Your task to perform on an android device: manage bookmarks in the chrome app Image 0: 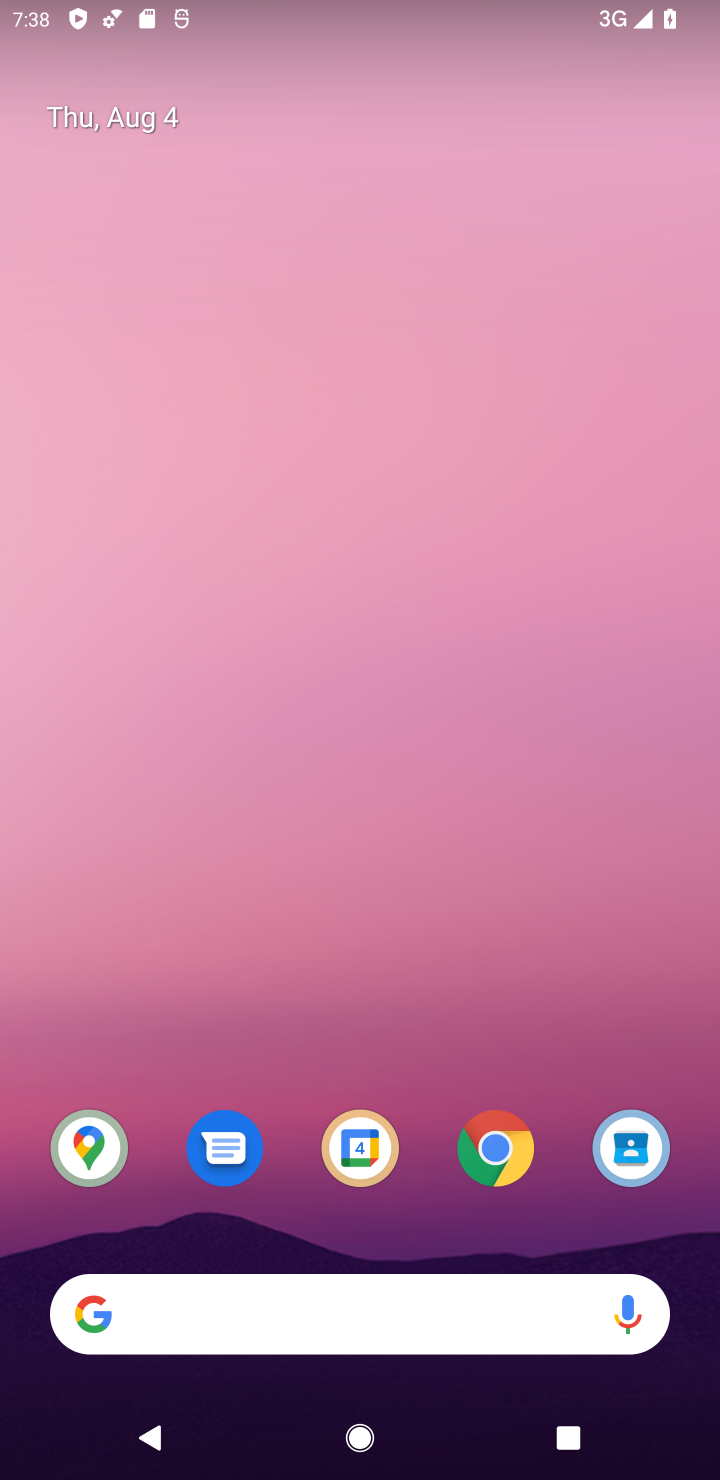
Step 0: click (510, 1151)
Your task to perform on an android device: manage bookmarks in the chrome app Image 1: 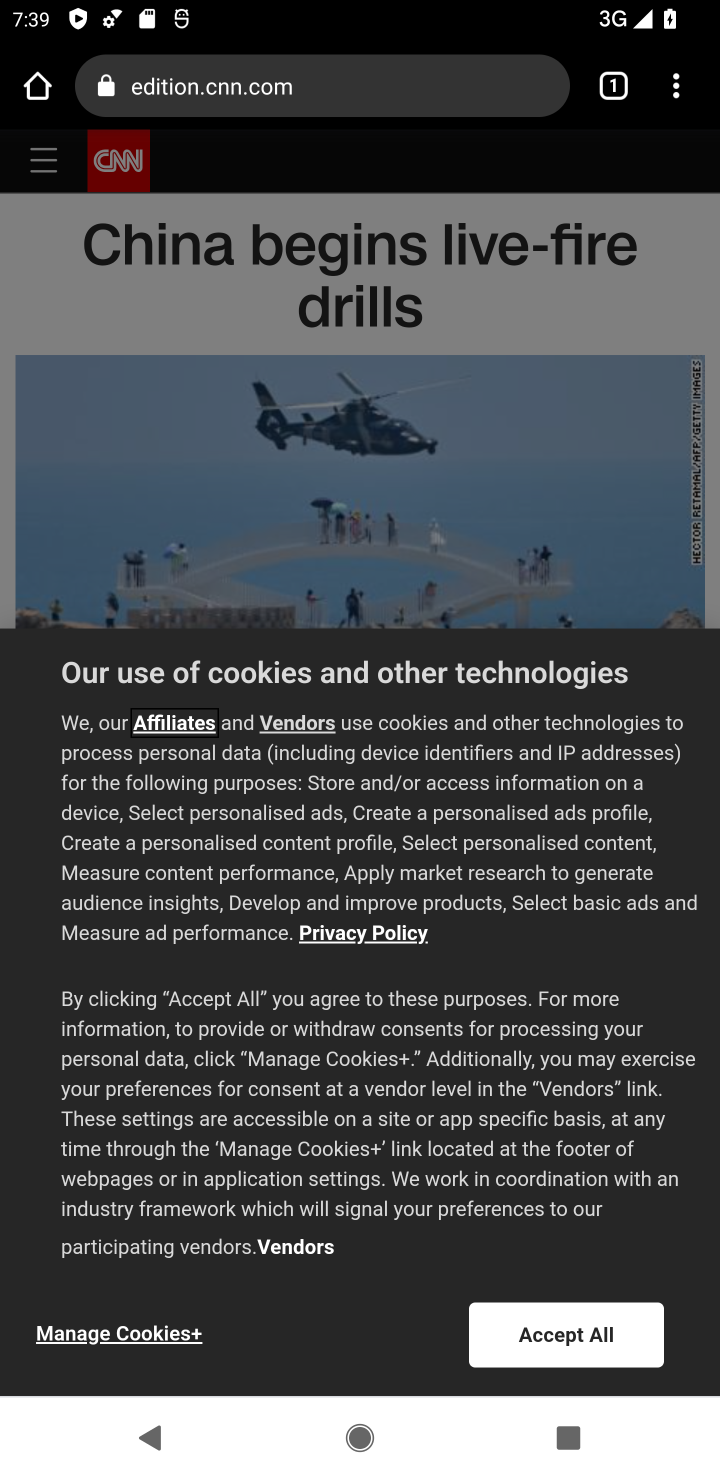
Step 1: click (698, 109)
Your task to perform on an android device: manage bookmarks in the chrome app Image 2: 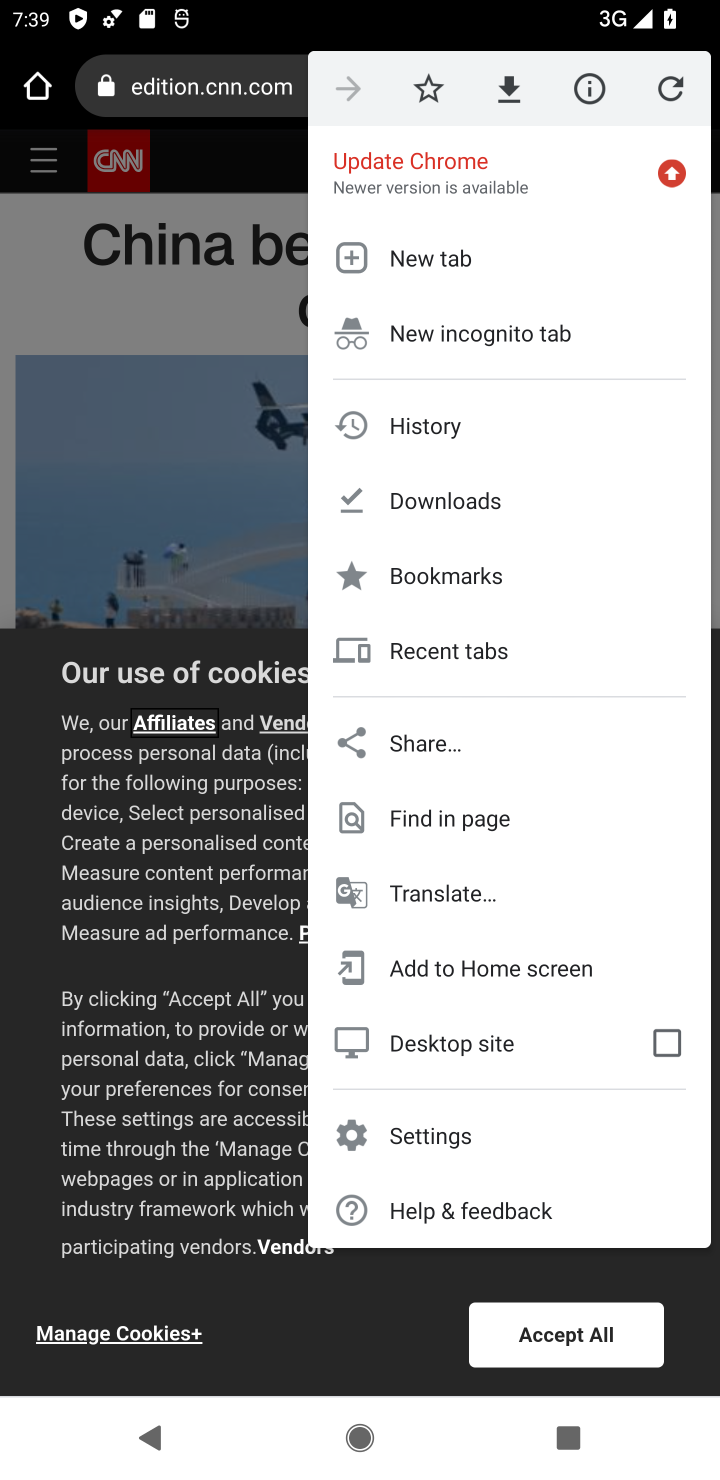
Step 2: click (542, 571)
Your task to perform on an android device: manage bookmarks in the chrome app Image 3: 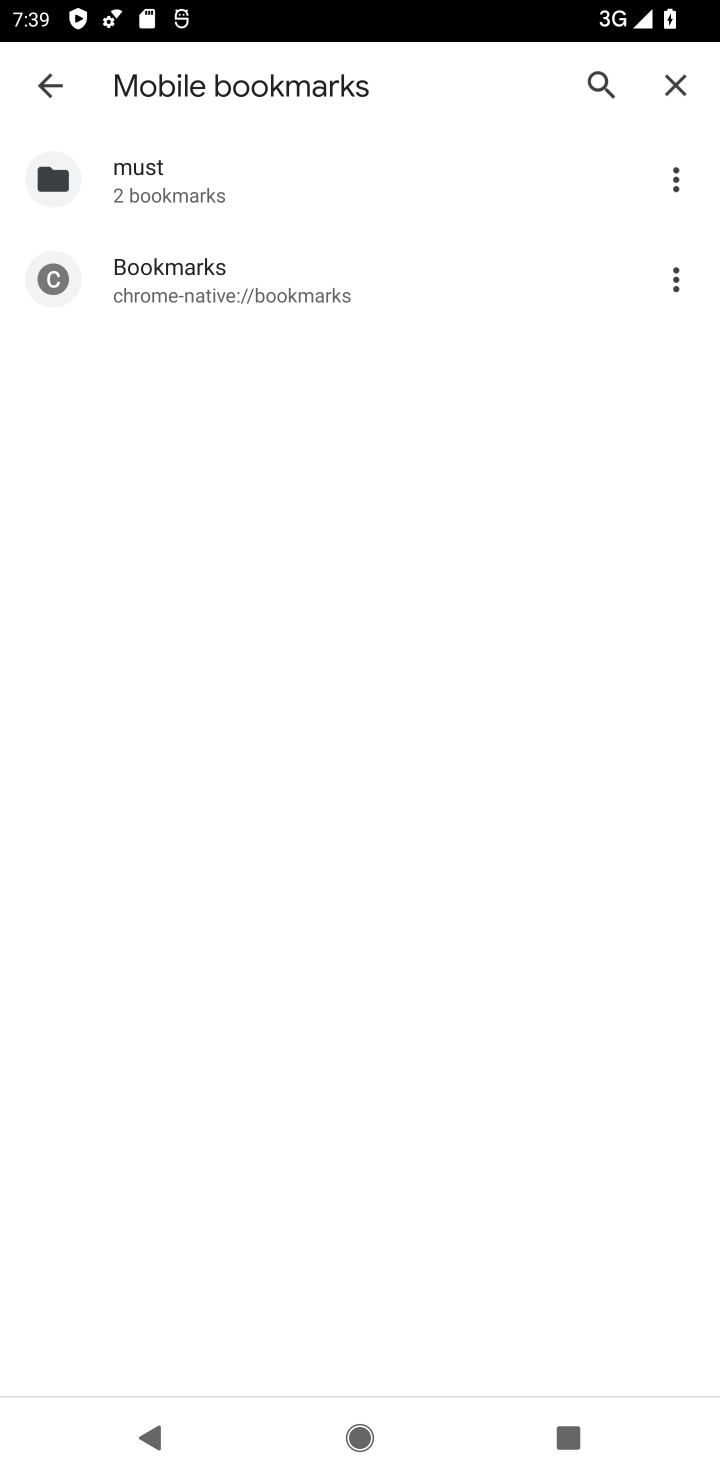
Step 3: click (260, 296)
Your task to perform on an android device: manage bookmarks in the chrome app Image 4: 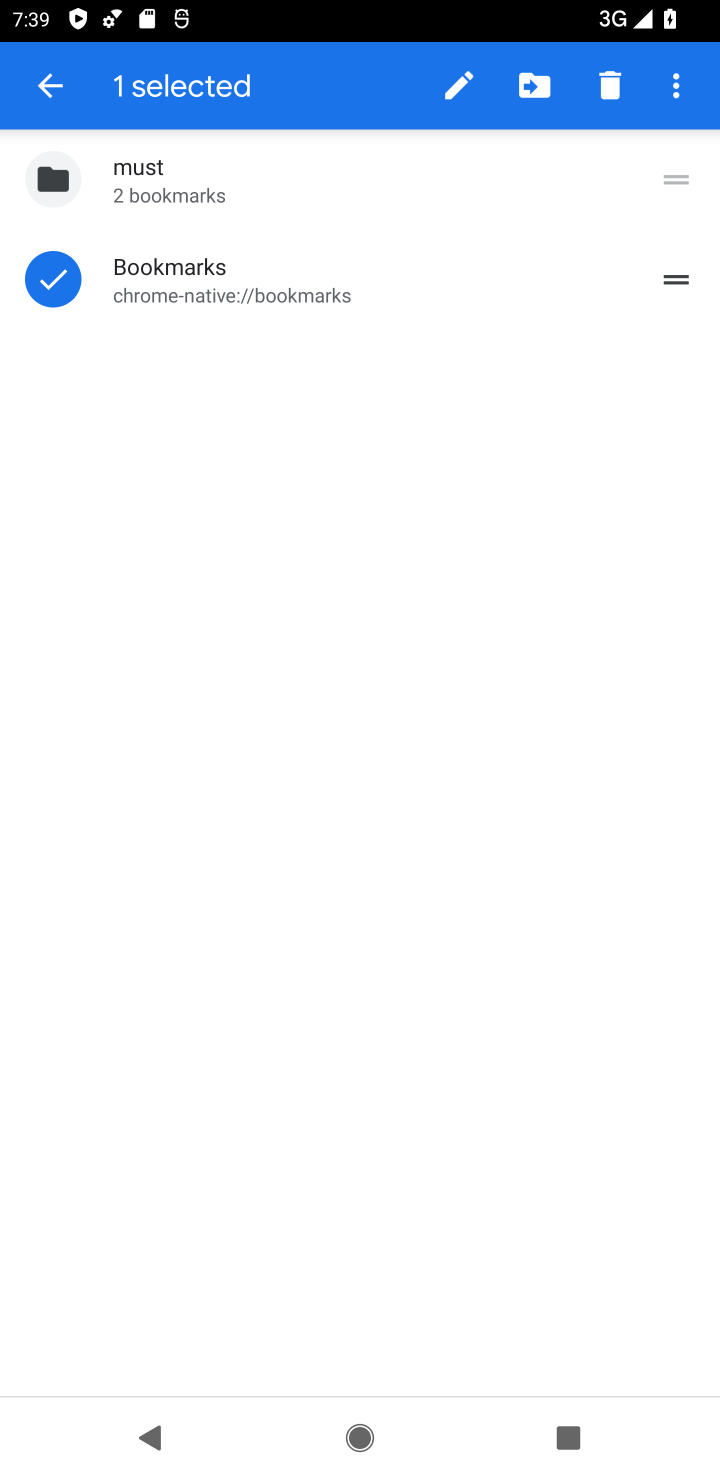
Step 4: click (519, 100)
Your task to perform on an android device: manage bookmarks in the chrome app Image 5: 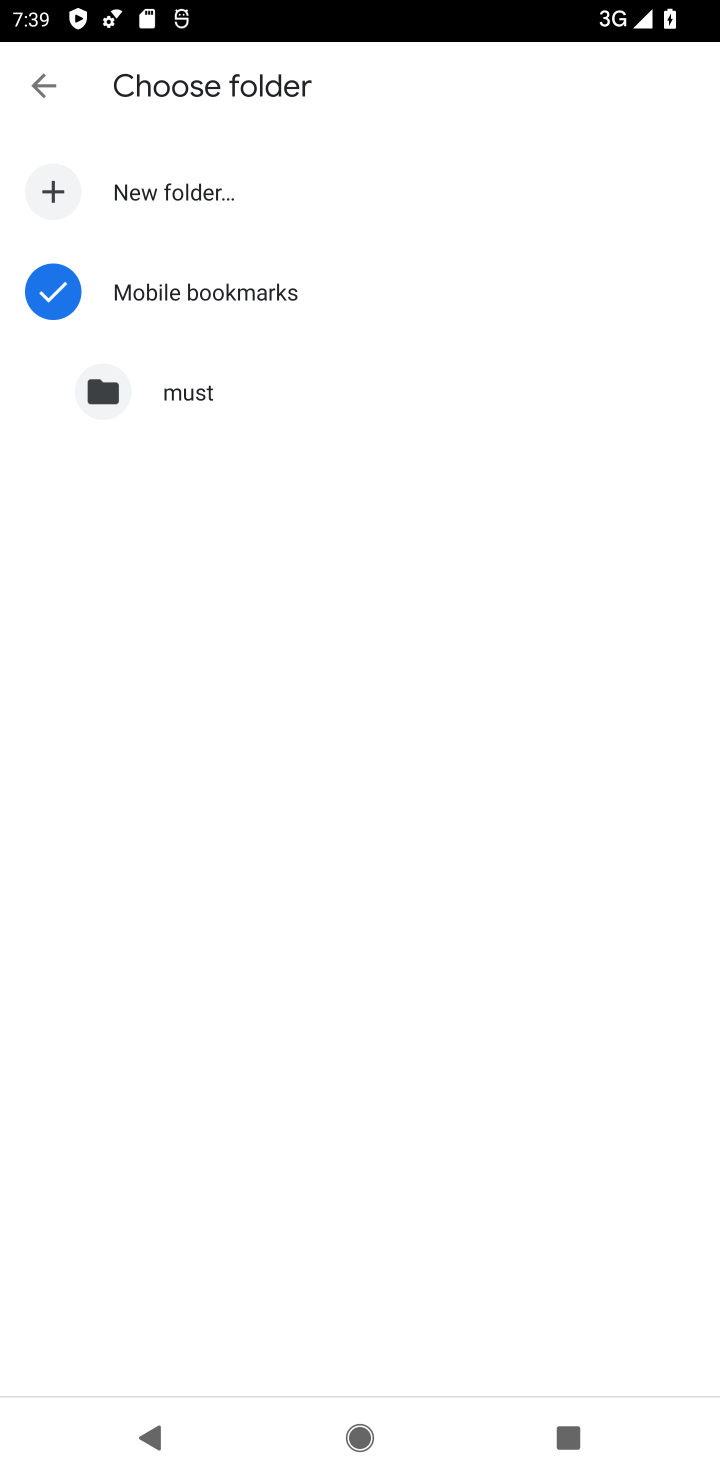
Step 5: click (237, 401)
Your task to perform on an android device: manage bookmarks in the chrome app Image 6: 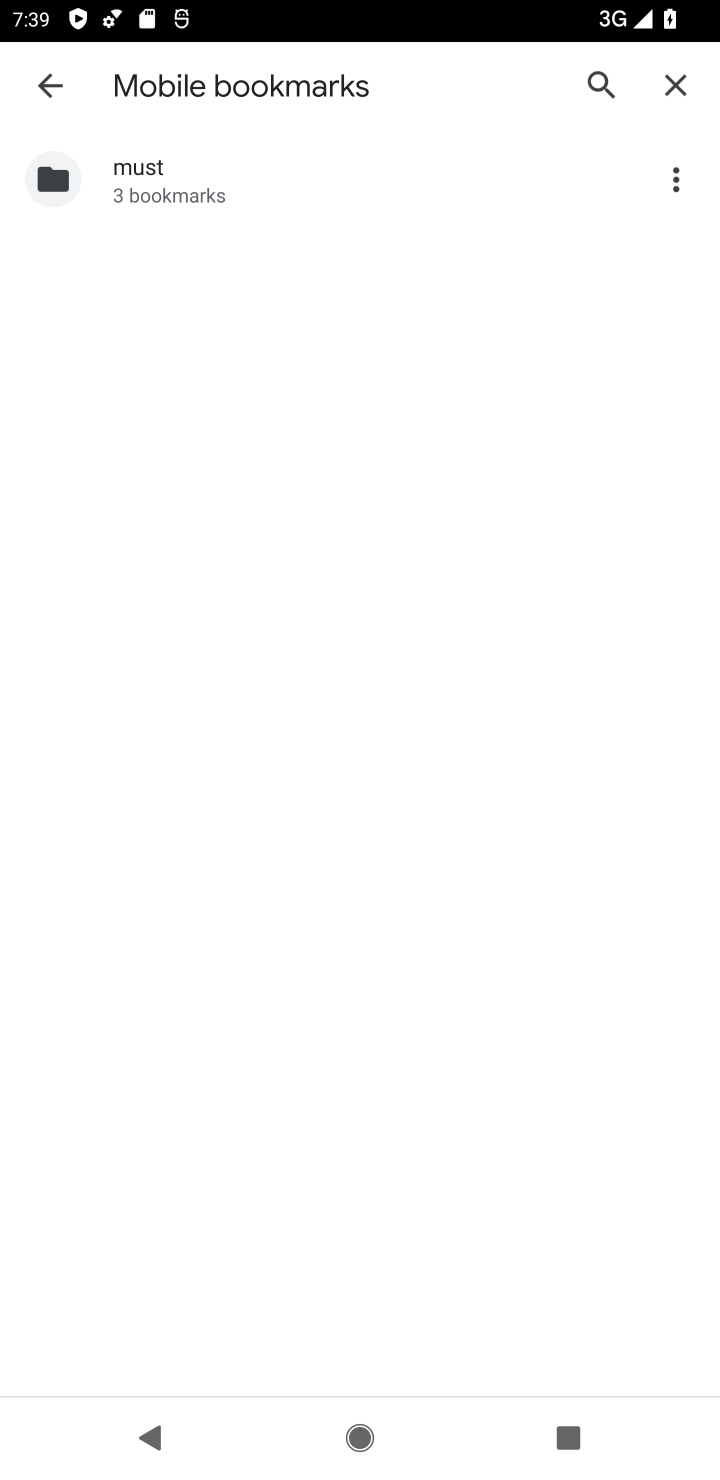
Step 6: task complete